Your task to perform on an android device: Open location settings Image 0: 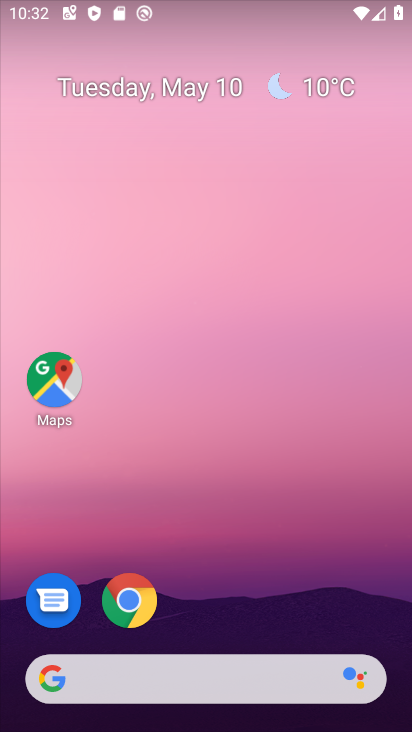
Step 0: drag from (262, 504) to (191, 101)
Your task to perform on an android device: Open location settings Image 1: 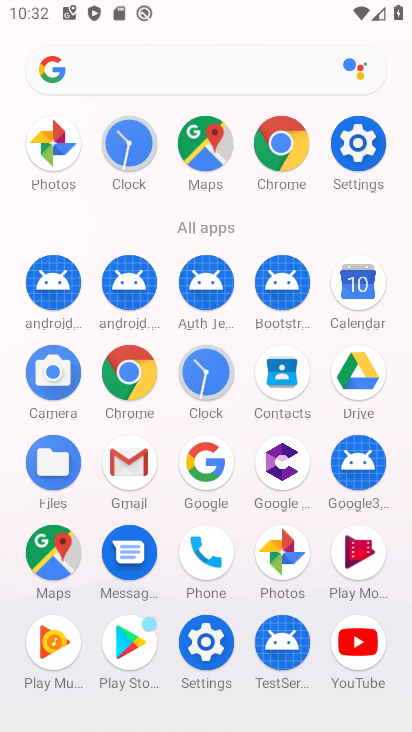
Step 1: click (356, 151)
Your task to perform on an android device: Open location settings Image 2: 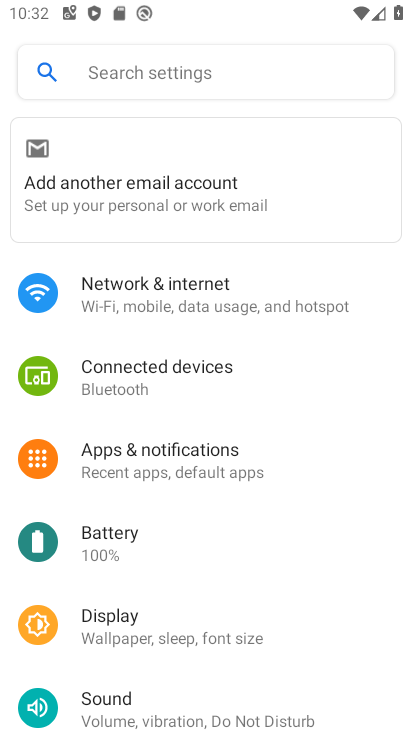
Step 2: drag from (260, 573) to (248, 197)
Your task to perform on an android device: Open location settings Image 3: 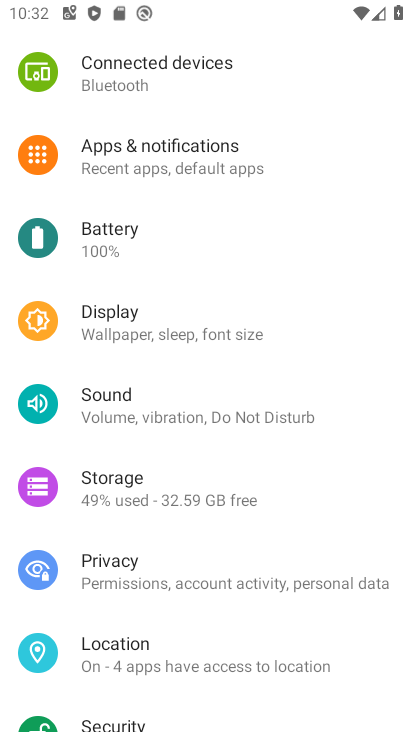
Step 3: click (237, 645)
Your task to perform on an android device: Open location settings Image 4: 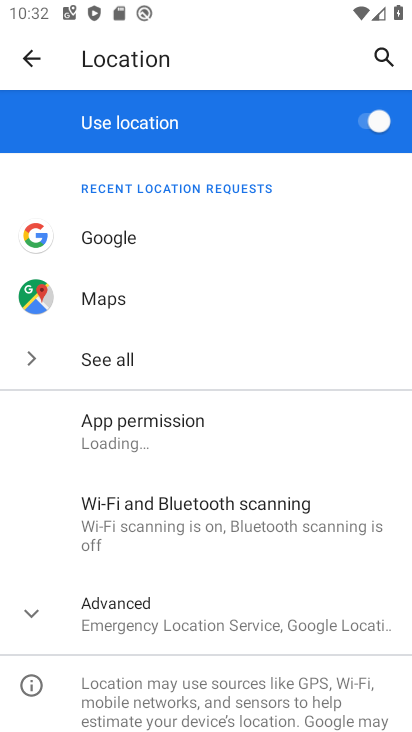
Step 4: task complete